Your task to perform on an android device: delete location history Image 0: 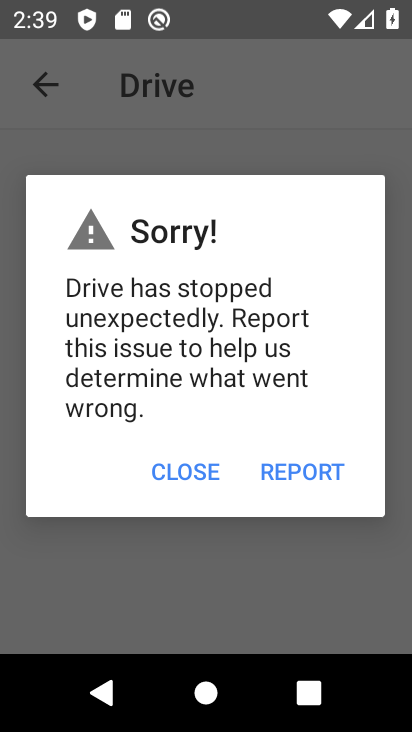
Step 0: press home button
Your task to perform on an android device: delete location history Image 1: 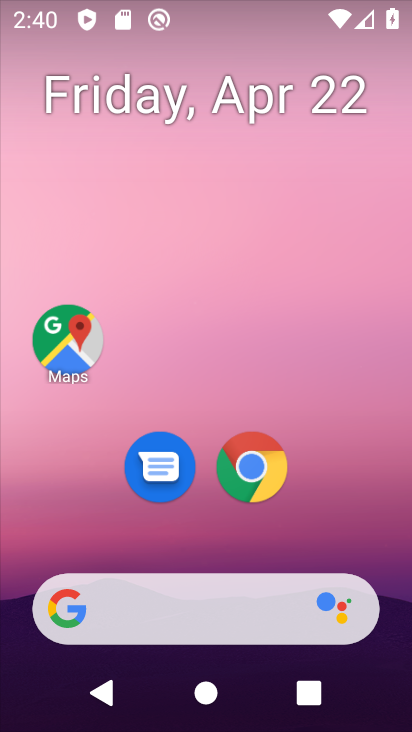
Step 1: click (84, 359)
Your task to perform on an android device: delete location history Image 2: 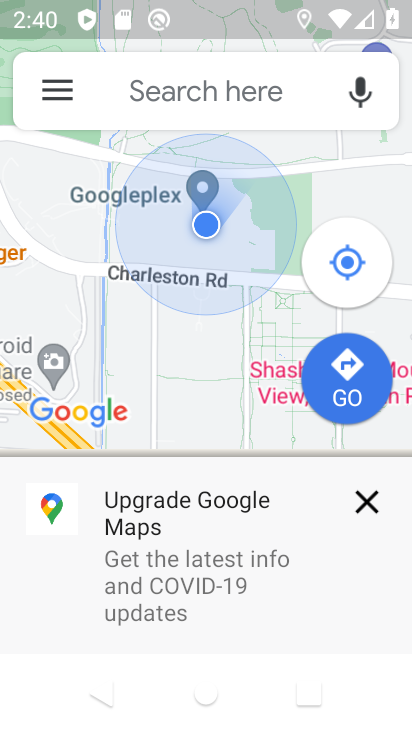
Step 2: click (57, 84)
Your task to perform on an android device: delete location history Image 3: 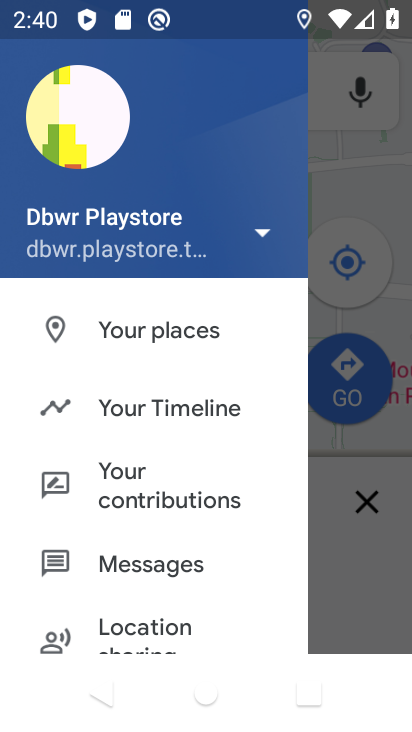
Step 3: click (164, 413)
Your task to perform on an android device: delete location history Image 4: 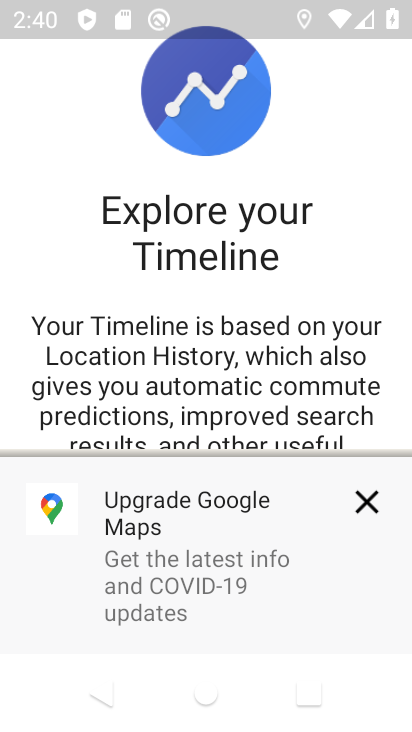
Step 4: click (371, 498)
Your task to perform on an android device: delete location history Image 5: 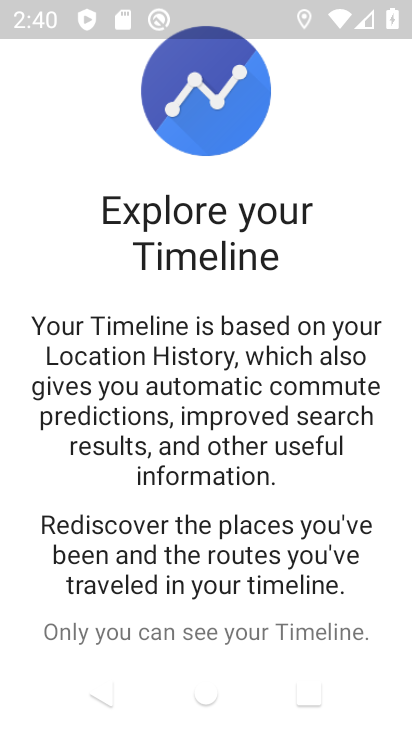
Step 5: drag from (287, 584) to (284, 194)
Your task to perform on an android device: delete location history Image 6: 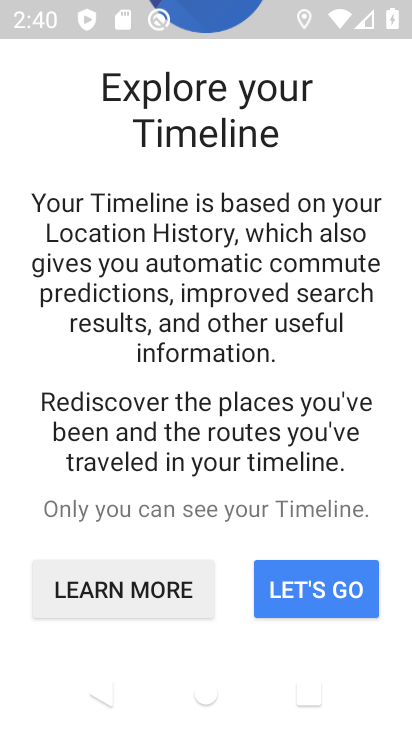
Step 6: click (338, 584)
Your task to perform on an android device: delete location history Image 7: 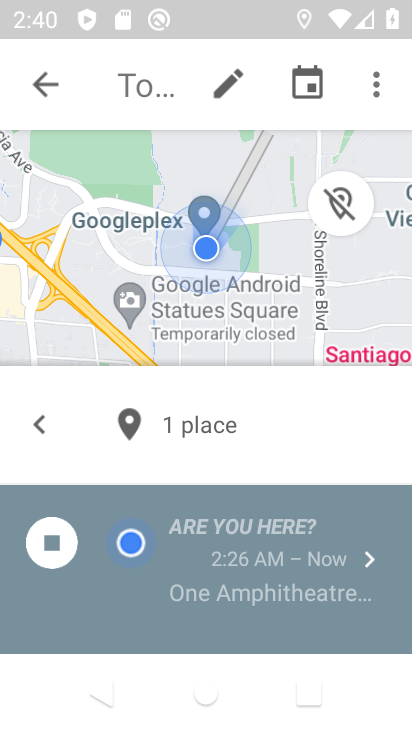
Step 7: click (376, 92)
Your task to perform on an android device: delete location history Image 8: 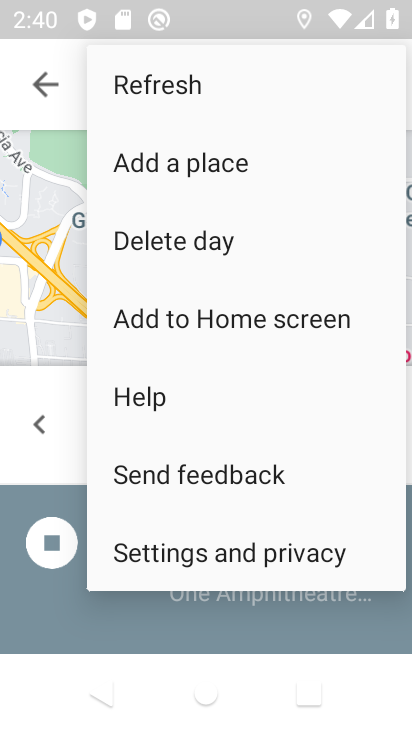
Step 8: click (203, 562)
Your task to perform on an android device: delete location history Image 9: 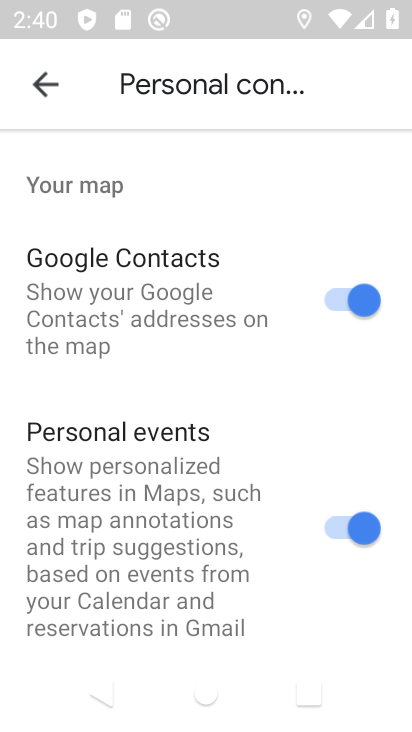
Step 9: drag from (216, 615) to (188, 116)
Your task to perform on an android device: delete location history Image 10: 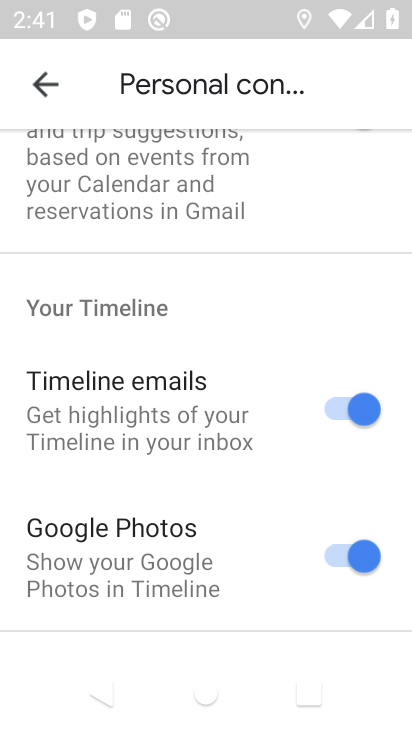
Step 10: drag from (231, 560) to (231, 215)
Your task to perform on an android device: delete location history Image 11: 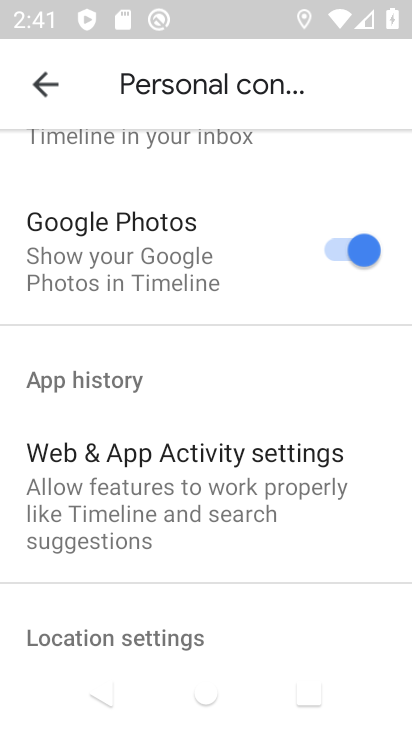
Step 11: drag from (242, 575) to (192, 224)
Your task to perform on an android device: delete location history Image 12: 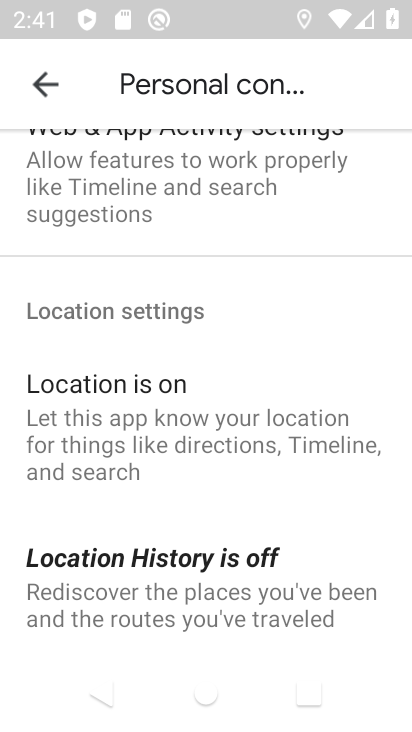
Step 12: drag from (217, 574) to (192, 237)
Your task to perform on an android device: delete location history Image 13: 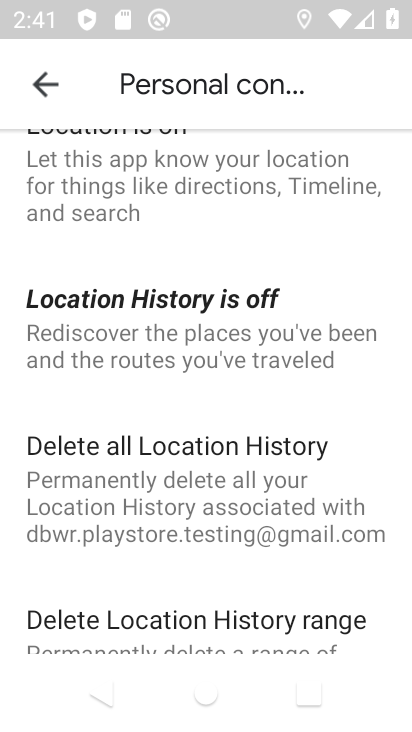
Step 13: click (194, 488)
Your task to perform on an android device: delete location history Image 14: 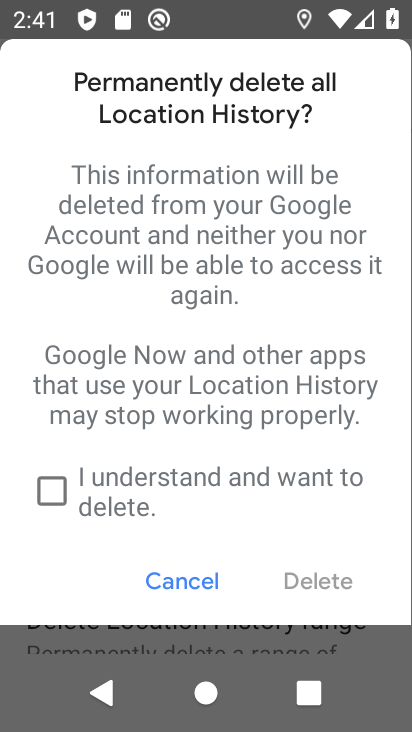
Step 14: click (194, 488)
Your task to perform on an android device: delete location history Image 15: 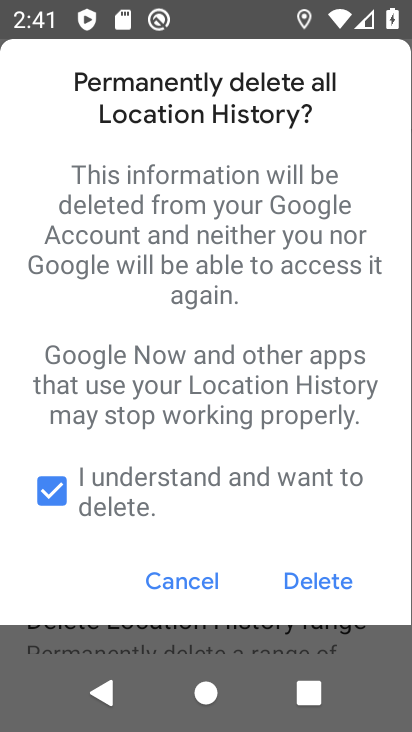
Step 15: click (301, 576)
Your task to perform on an android device: delete location history Image 16: 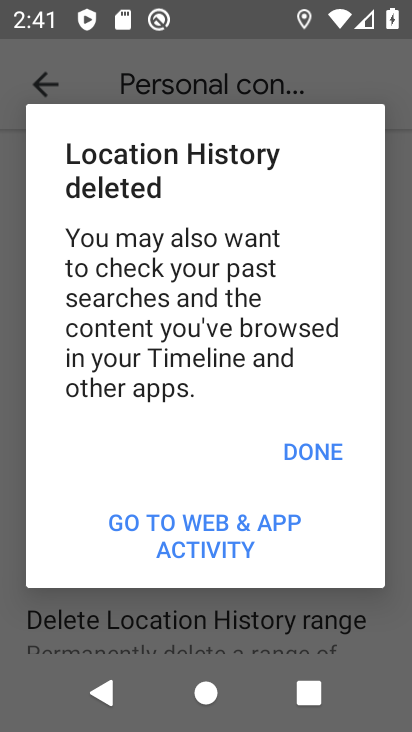
Step 16: click (318, 457)
Your task to perform on an android device: delete location history Image 17: 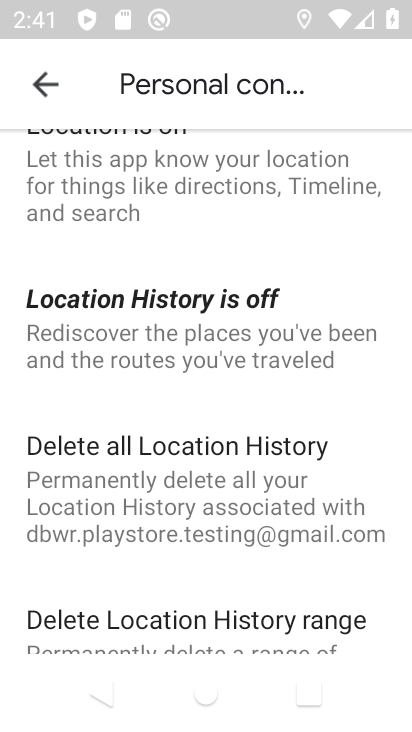
Step 17: task complete